Your task to perform on an android device: open app "Google Play Games" Image 0: 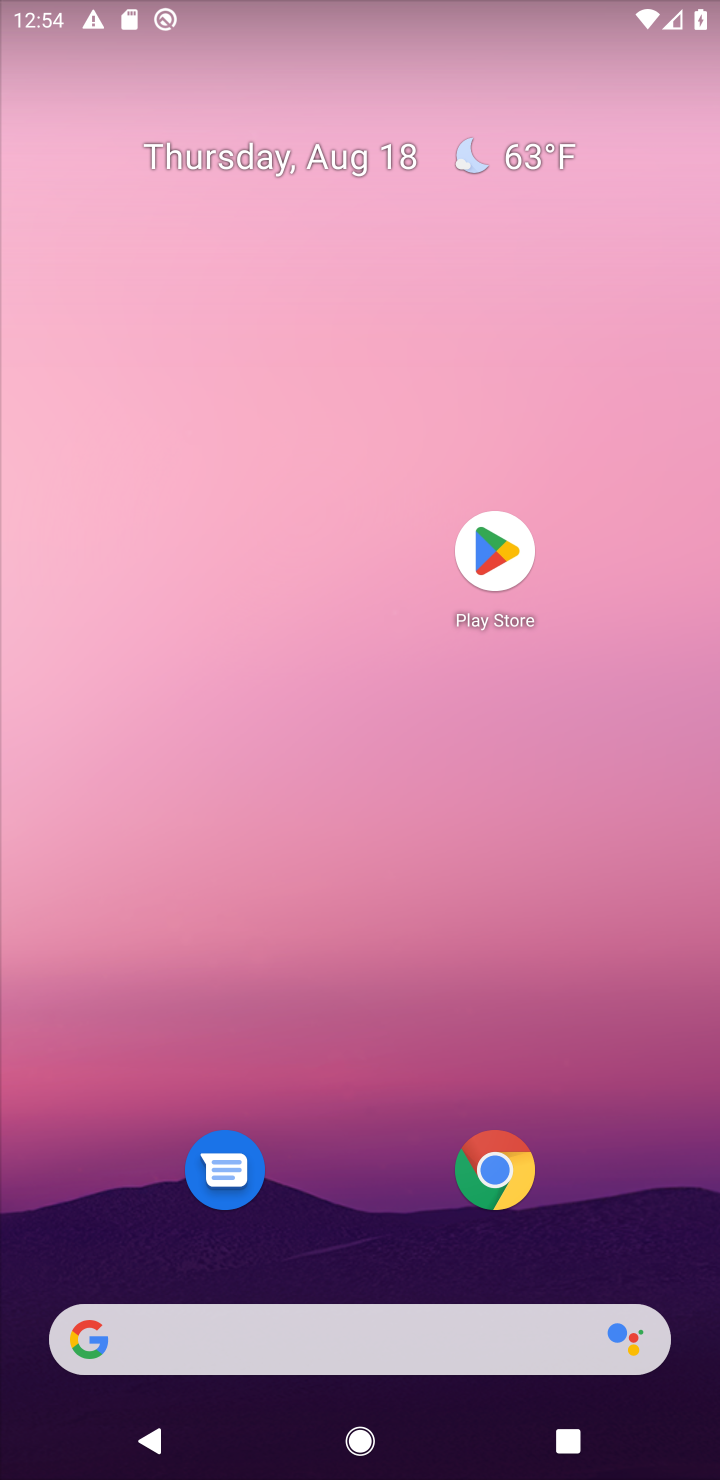
Step 0: click (492, 546)
Your task to perform on an android device: open app "Google Play Games" Image 1: 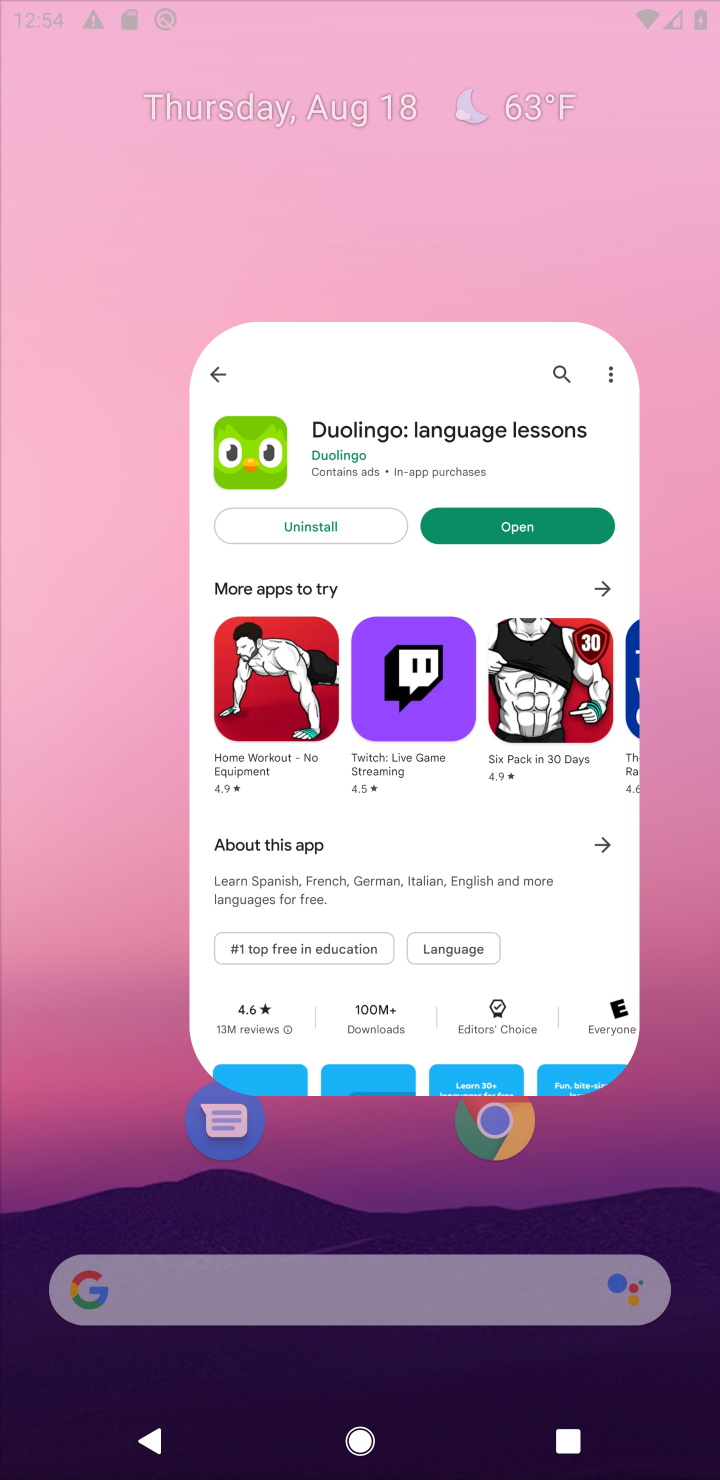
Step 1: click (492, 548)
Your task to perform on an android device: open app "Google Play Games" Image 2: 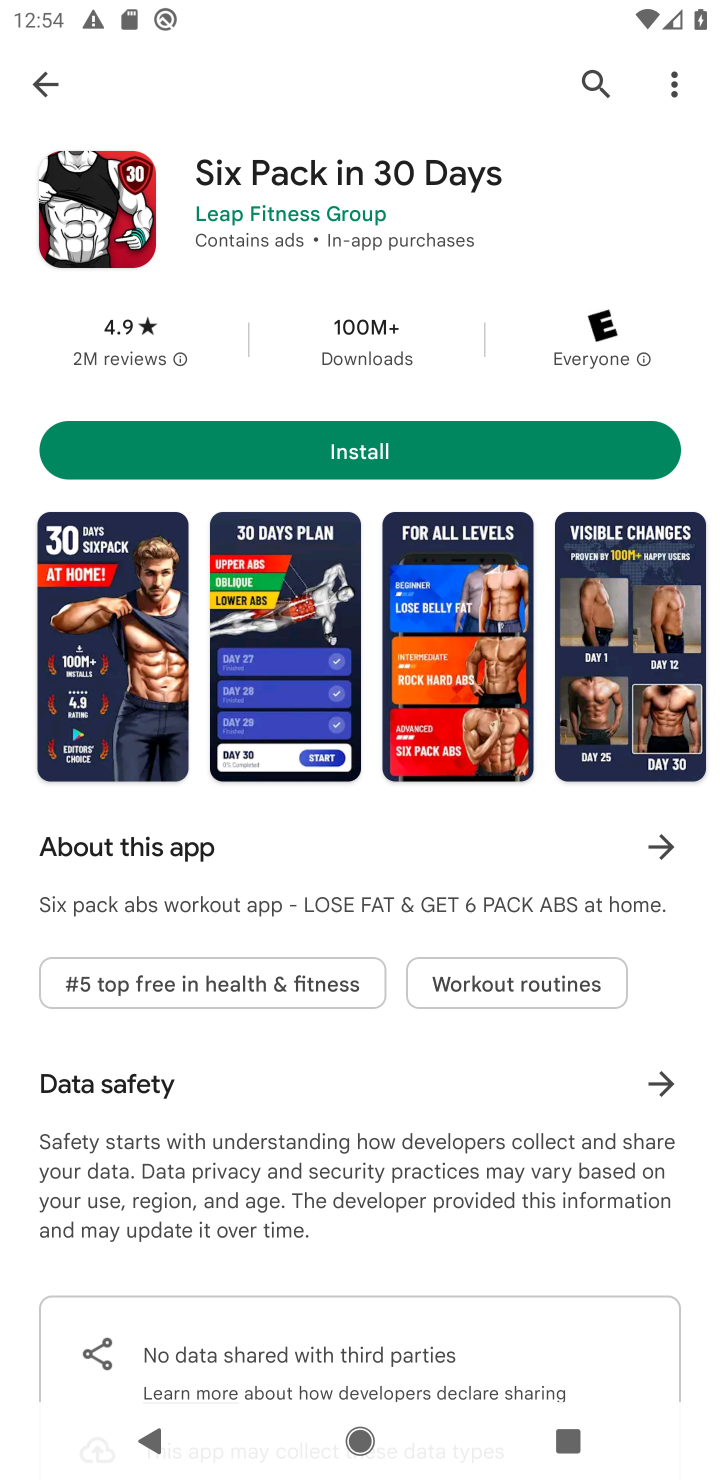
Step 2: click (587, 78)
Your task to perform on an android device: open app "Google Play Games" Image 3: 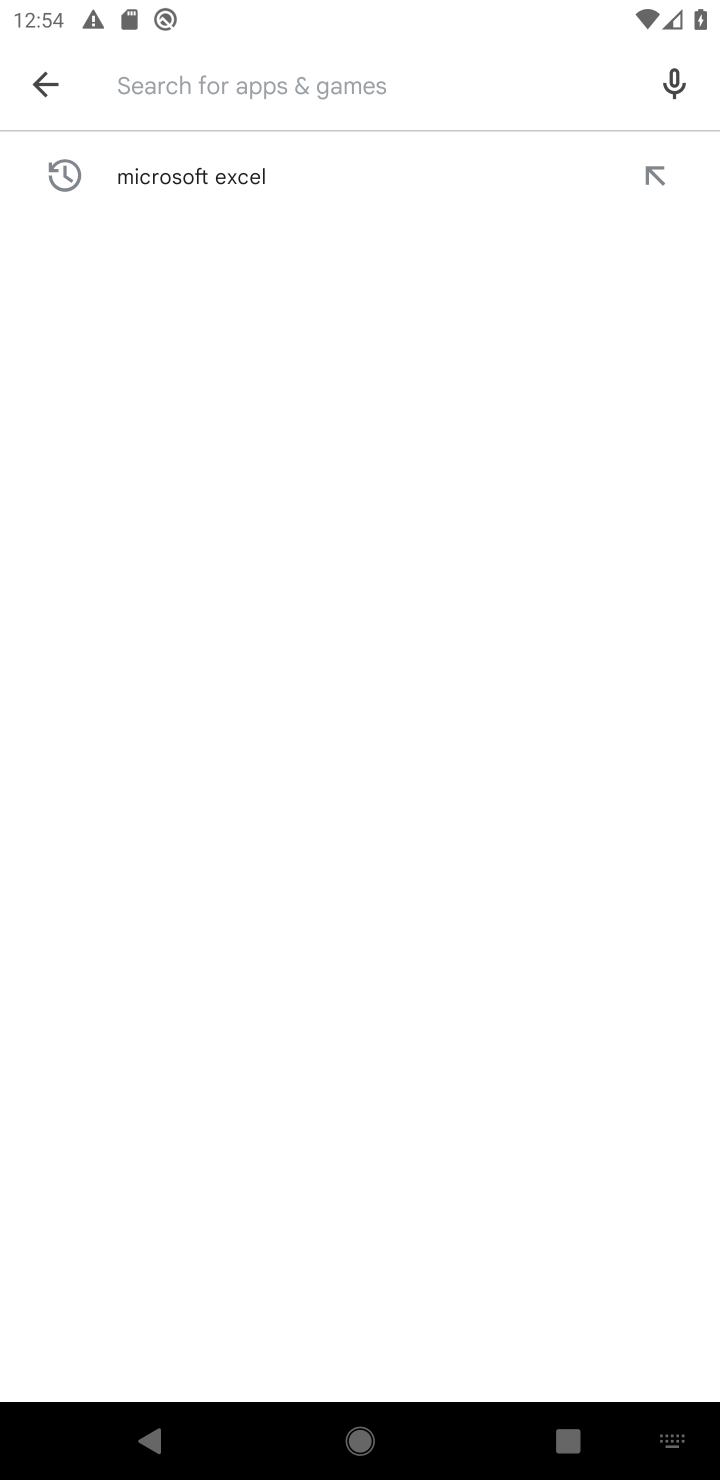
Step 3: type "Google Play Games"
Your task to perform on an android device: open app "Google Play Games" Image 4: 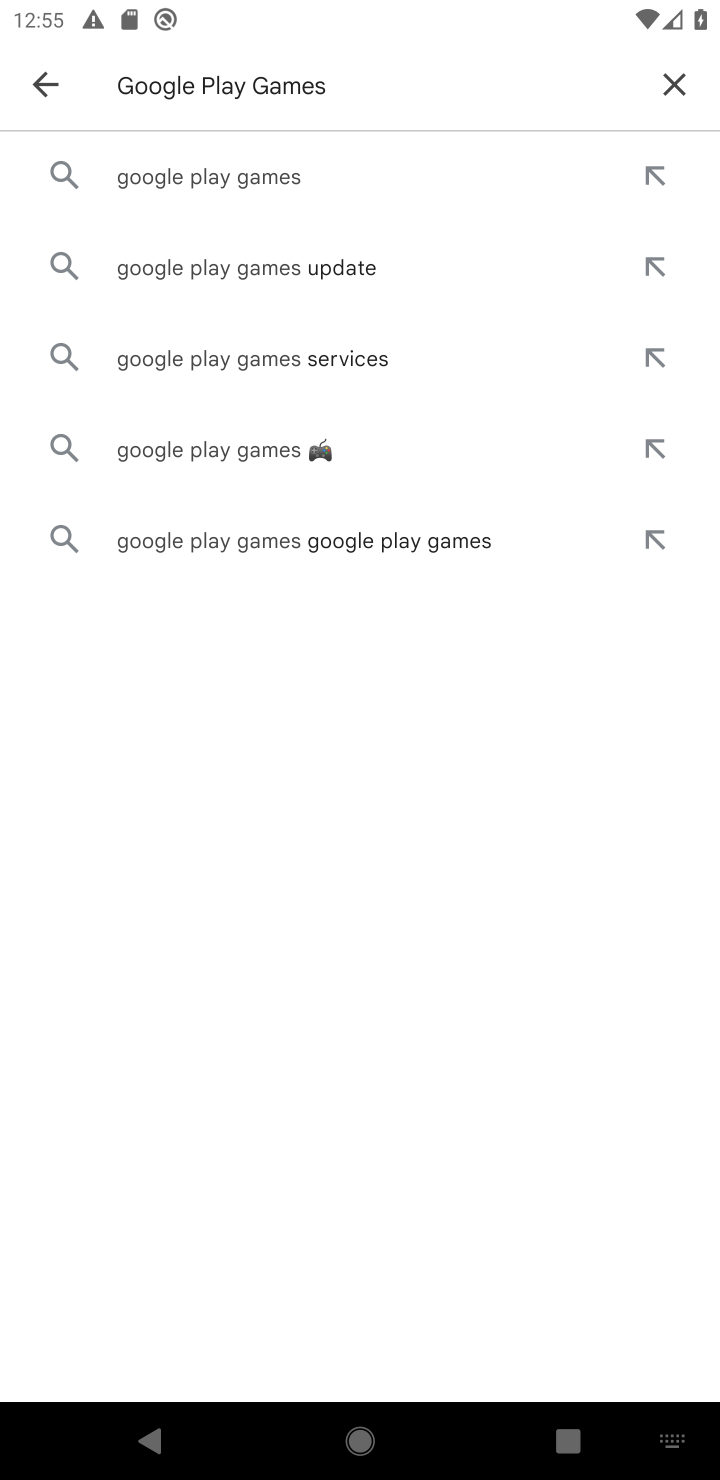
Step 4: click (199, 179)
Your task to perform on an android device: open app "Google Play Games" Image 5: 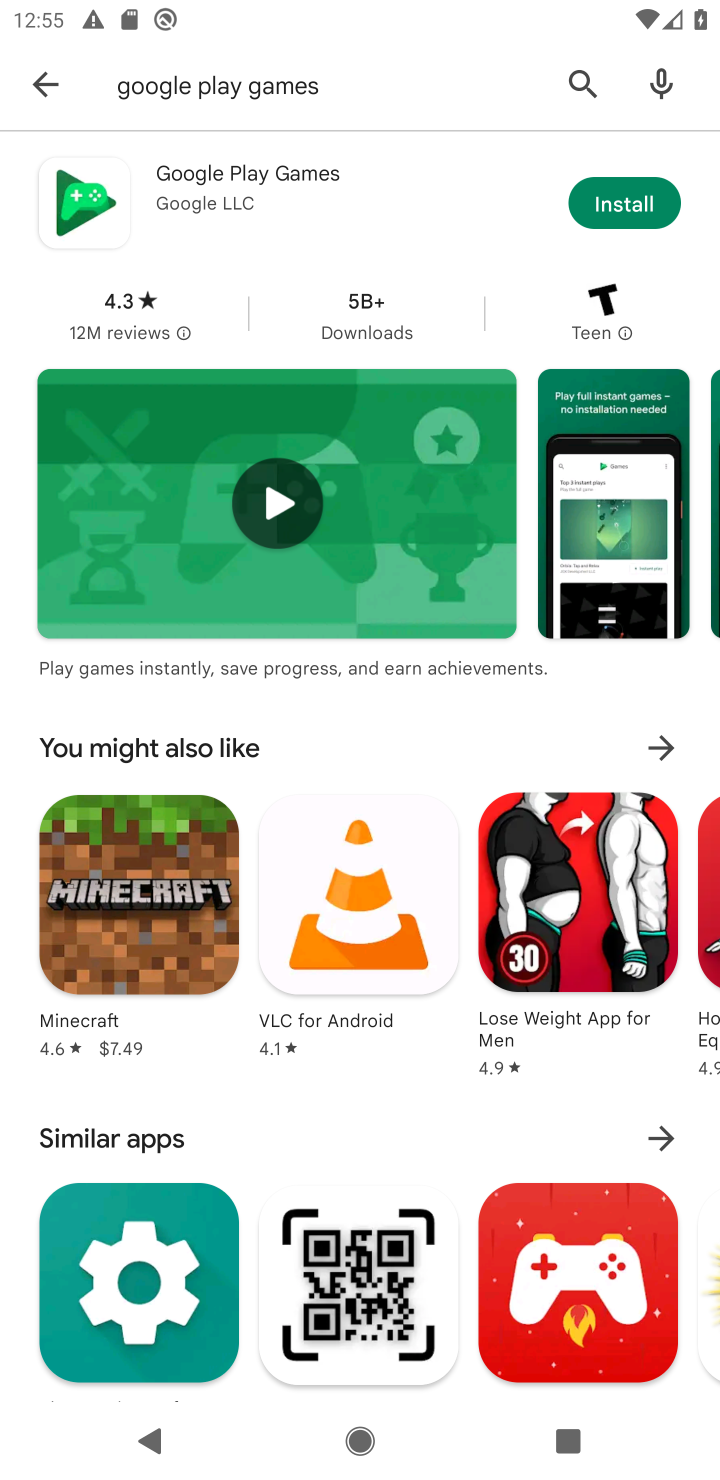
Step 5: task complete